Your task to perform on an android device: see tabs open on other devices in the chrome app Image 0: 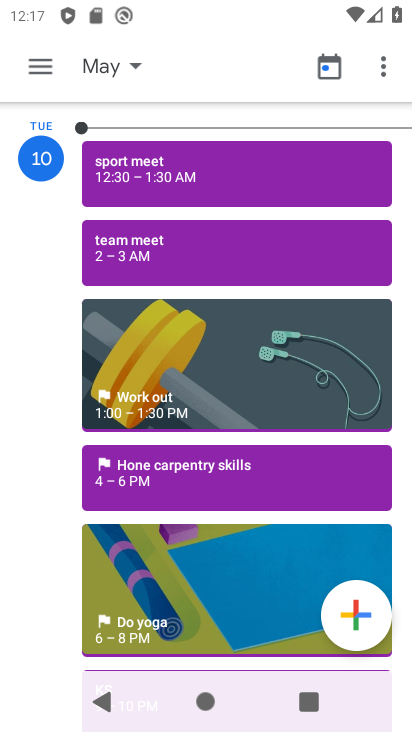
Step 0: press home button
Your task to perform on an android device: see tabs open on other devices in the chrome app Image 1: 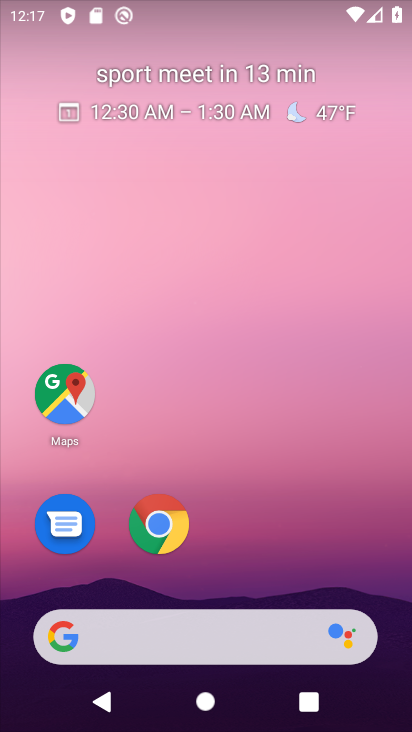
Step 1: click (165, 524)
Your task to perform on an android device: see tabs open on other devices in the chrome app Image 2: 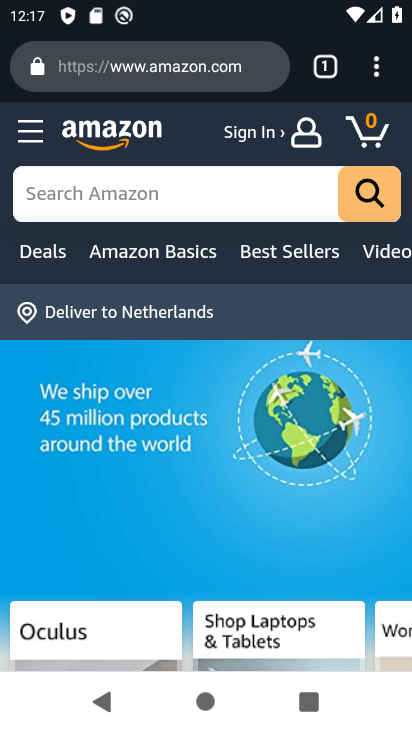
Step 2: click (369, 66)
Your task to perform on an android device: see tabs open on other devices in the chrome app Image 3: 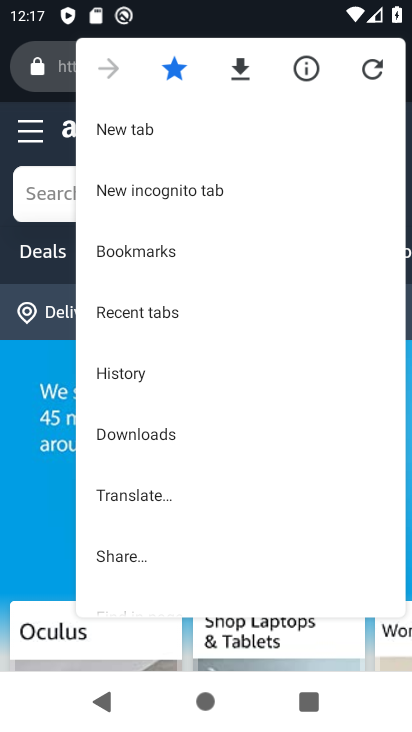
Step 3: click (174, 303)
Your task to perform on an android device: see tabs open on other devices in the chrome app Image 4: 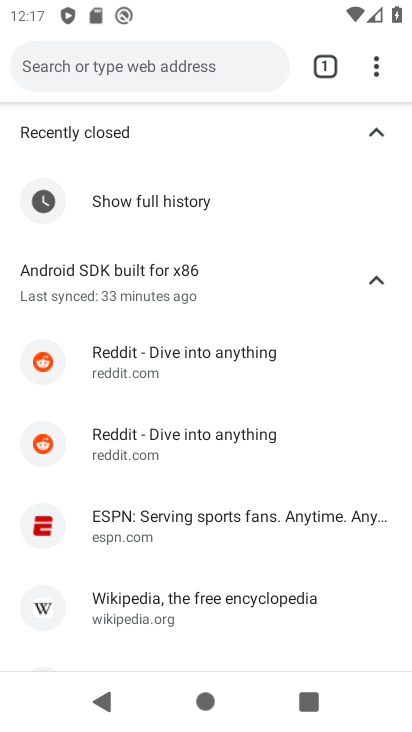
Step 4: task complete